Your task to perform on an android device: Search for pizza restaurants on Maps Image 0: 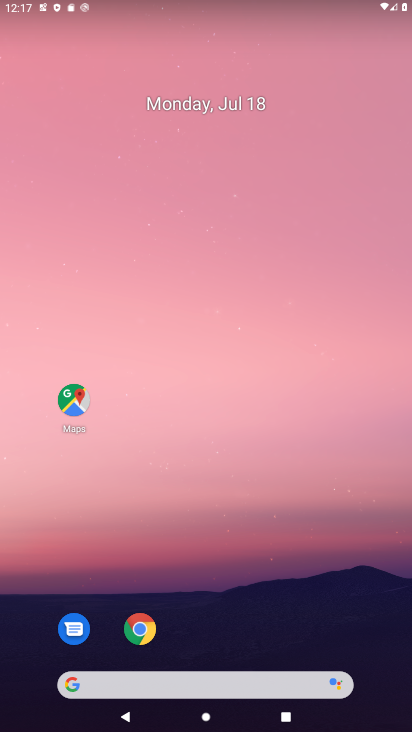
Step 0: press home button
Your task to perform on an android device: Search for pizza restaurants on Maps Image 1: 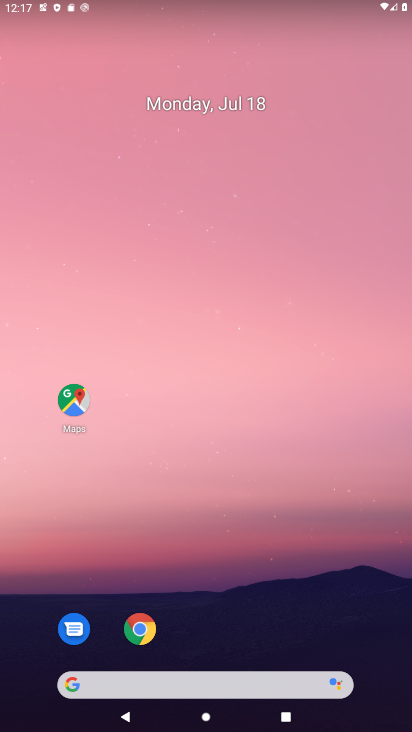
Step 1: click (69, 399)
Your task to perform on an android device: Search for pizza restaurants on Maps Image 2: 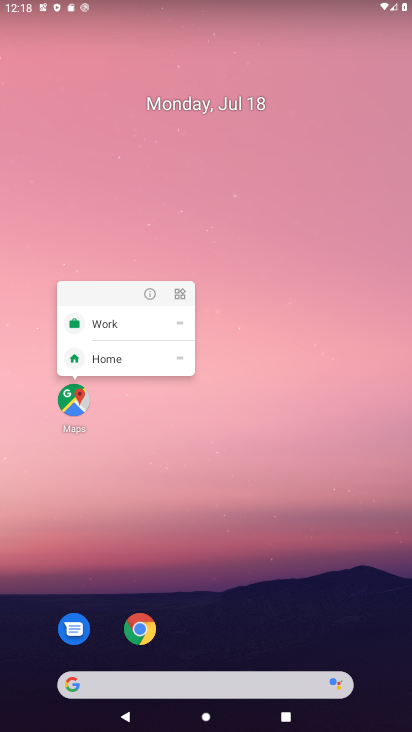
Step 2: click (69, 399)
Your task to perform on an android device: Search for pizza restaurants on Maps Image 3: 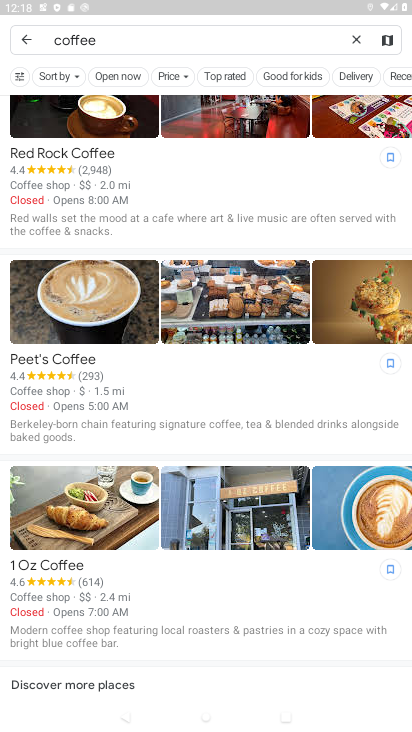
Step 3: click (26, 39)
Your task to perform on an android device: Search for pizza restaurants on Maps Image 4: 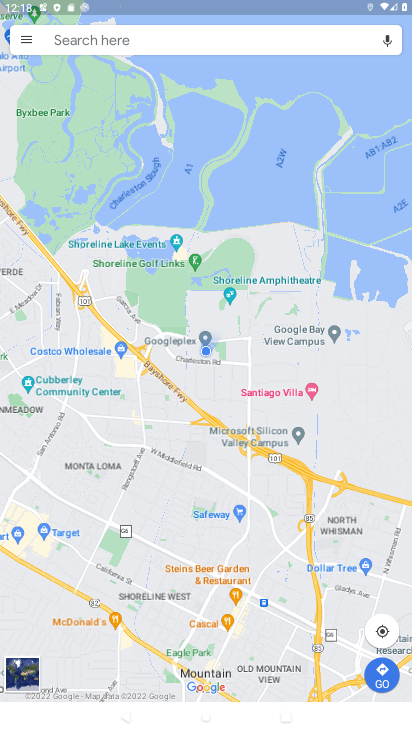
Step 4: click (83, 35)
Your task to perform on an android device: Search for pizza restaurants on Maps Image 5: 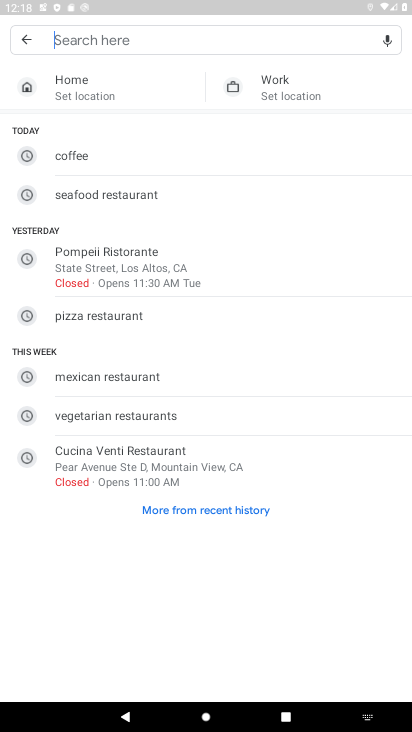
Step 5: type "pizza restaurant"
Your task to perform on an android device: Search for pizza restaurants on Maps Image 6: 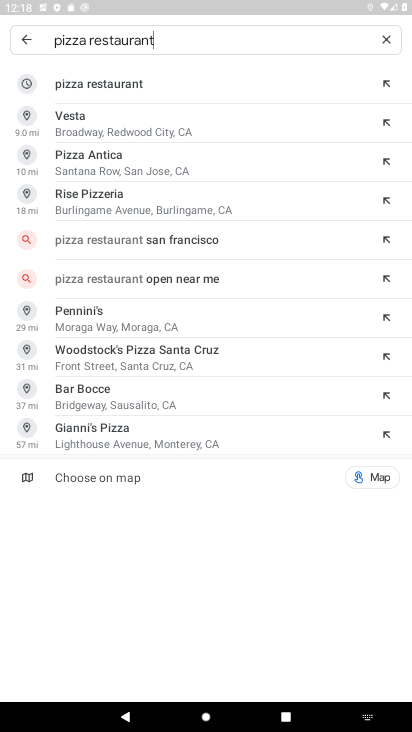
Step 6: click (153, 85)
Your task to perform on an android device: Search for pizza restaurants on Maps Image 7: 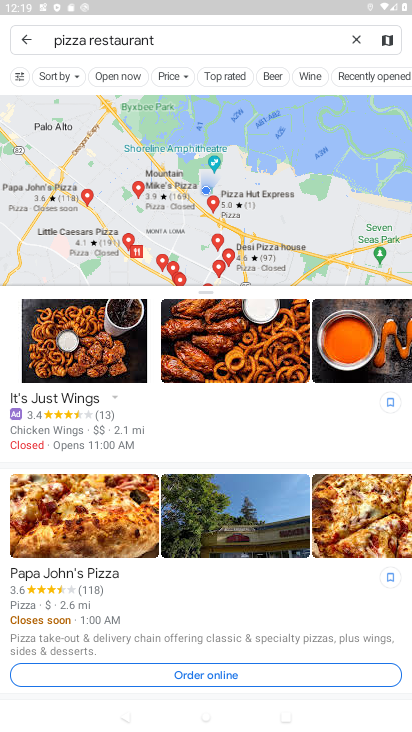
Step 7: task complete